Your task to perform on an android device: See recent photos Image 0: 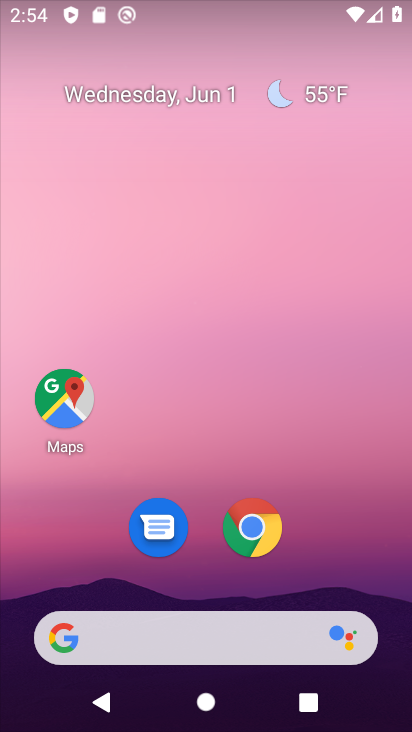
Step 0: press home button
Your task to perform on an android device: See recent photos Image 1: 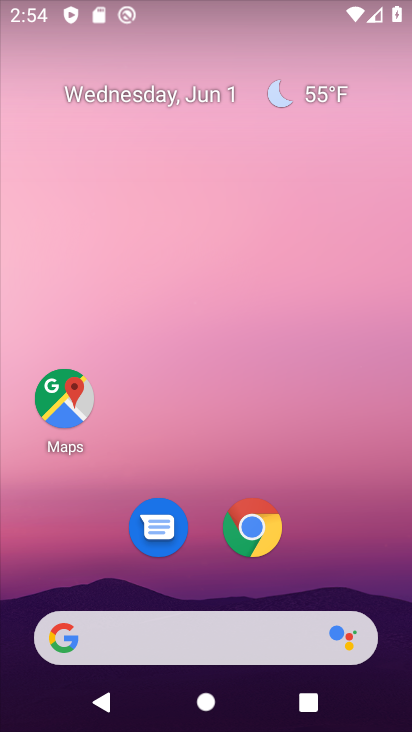
Step 1: drag from (393, 530) to (339, 297)
Your task to perform on an android device: See recent photos Image 2: 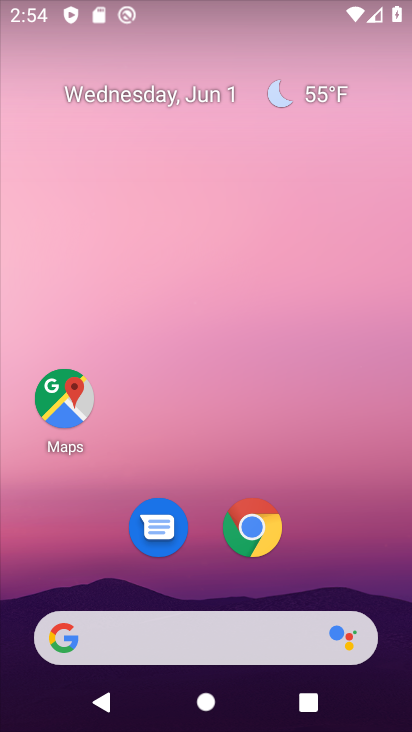
Step 2: drag from (361, 574) to (209, 0)
Your task to perform on an android device: See recent photos Image 3: 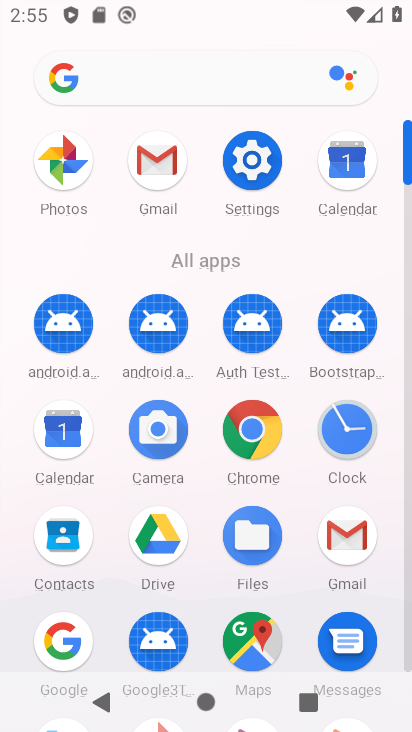
Step 3: drag from (323, 520) to (234, 102)
Your task to perform on an android device: See recent photos Image 4: 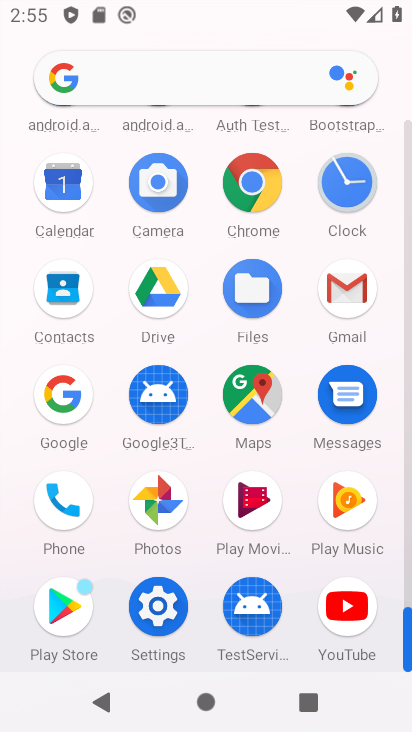
Step 4: click (151, 503)
Your task to perform on an android device: See recent photos Image 5: 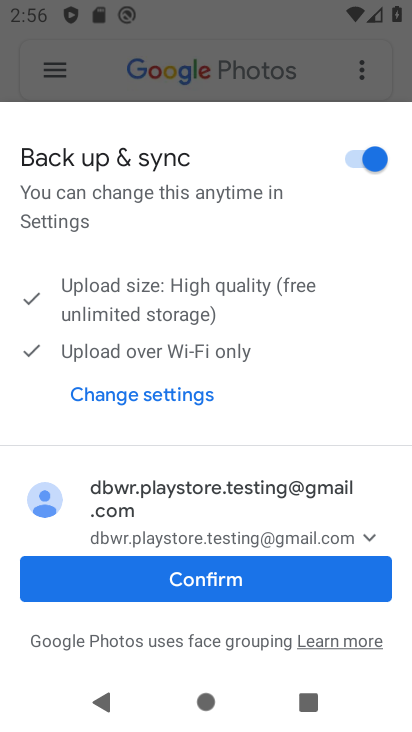
Step 5: click (48, 603)
Your task to perform on an android device: See recent photos Image 6: 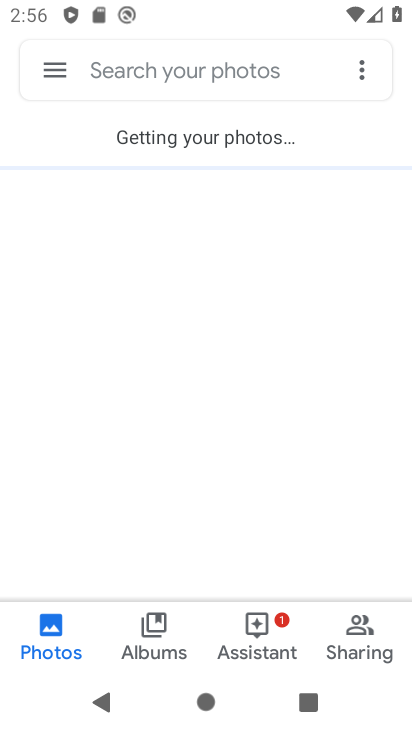
Step 6: task complete